Your task to perform on an android device: Open Chrome and go to settings Image 0: 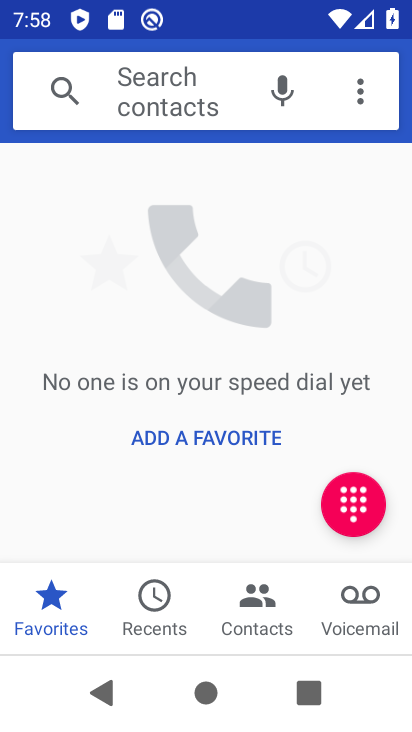
Step 0: press home button
Your task to perform on an android device: Open Chrome and go to settings Image 1: 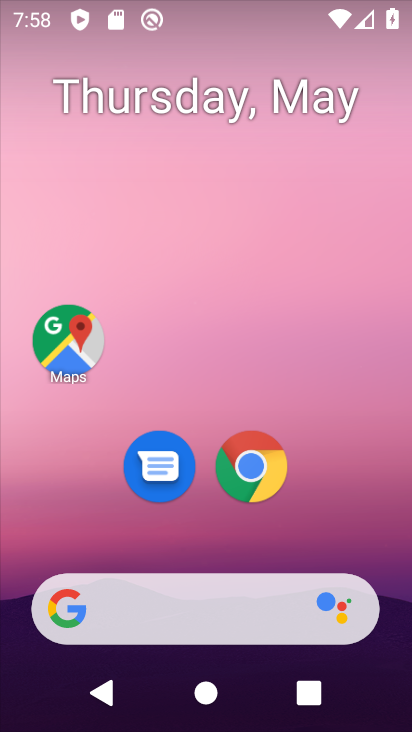
Step 1: click (255, 484)
Your task to perform on an android device: Open Chrome and go to settings Image 2: 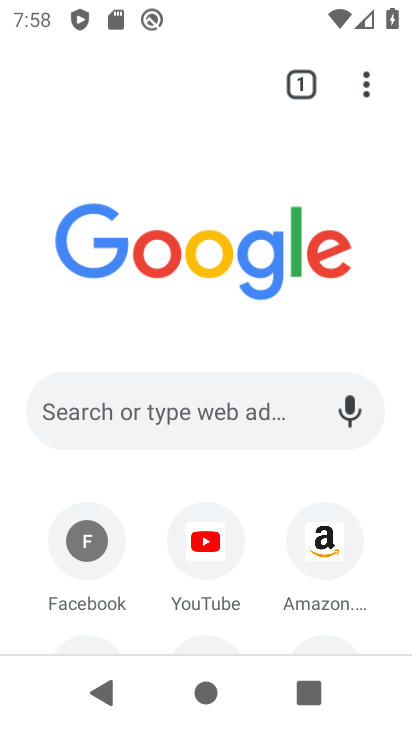
Step 2: click (363, 94)
Your task to perform on an android device: Open Chrome and go to settings Image 3: 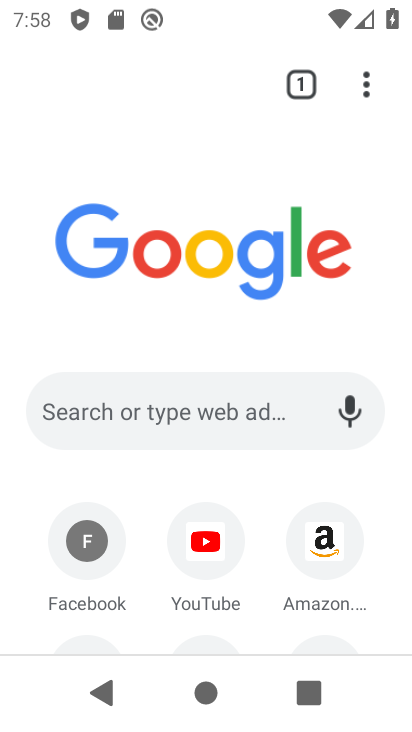
Step 3: task complete